Your task to perform on an android device: open wifi settings Image 0: 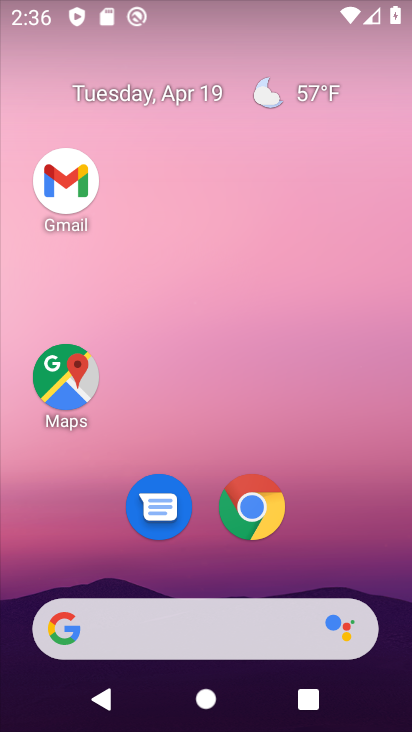
Step 0: drag from (199, 595) to (234, 209)
Your task to perform on an android device: open wifi settings Image 1: 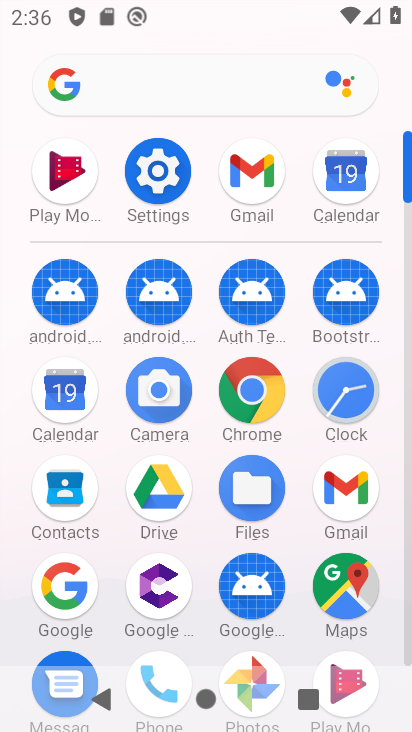
Step 1: click (157, 169)
Your task to perform on an android device: open wifi settings Image 2: 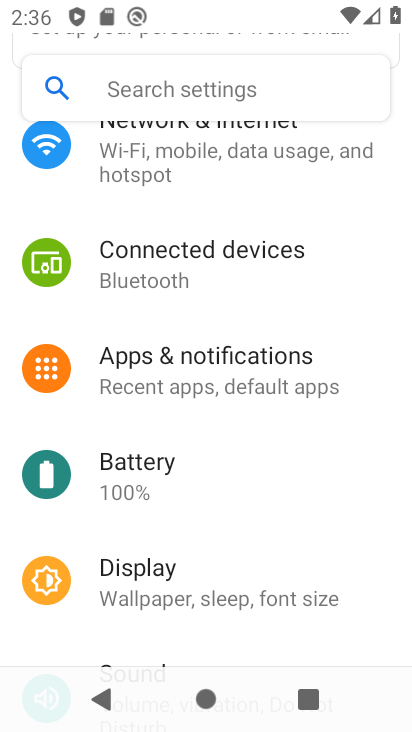
Step 2: click (224, 156)
Your task to perform on an android device: open wifi settings Image 3: 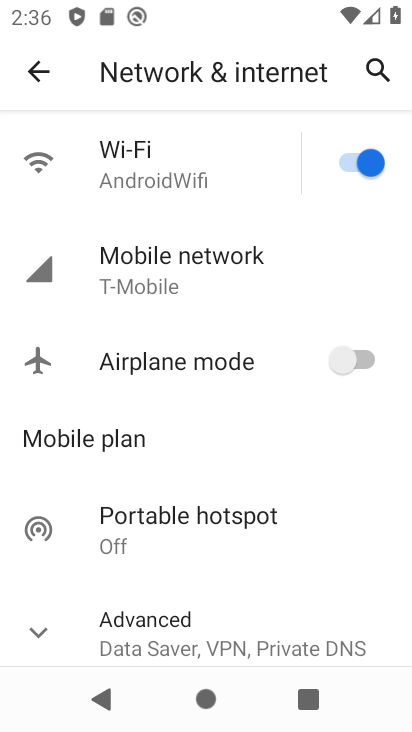
Step 3: click (224, 156)
Your task to perform on an android device: open wifi settings Image 4: 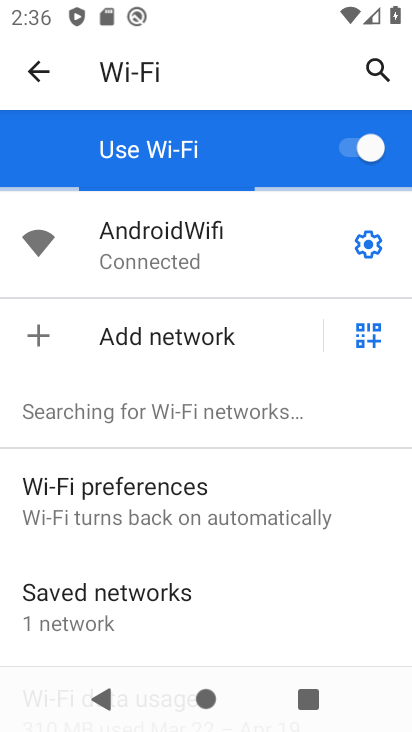
Step 4: click (360, 245)
Your task to perform on an android device: open wifi settings Image 5: 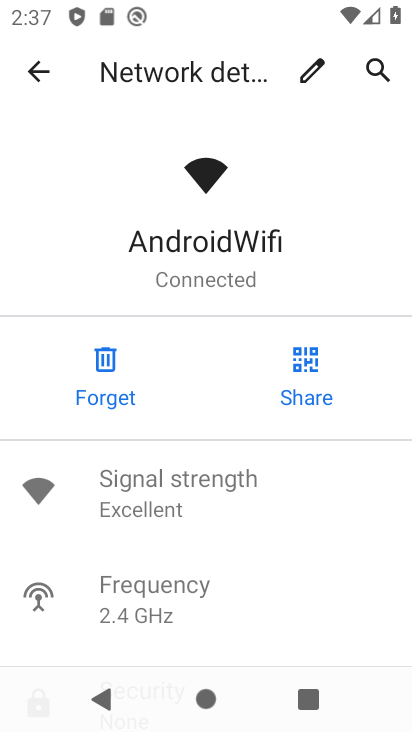
Step 5: task complete